Your task to perform on an android device: Search for the best Mexican restaurants Image 0: 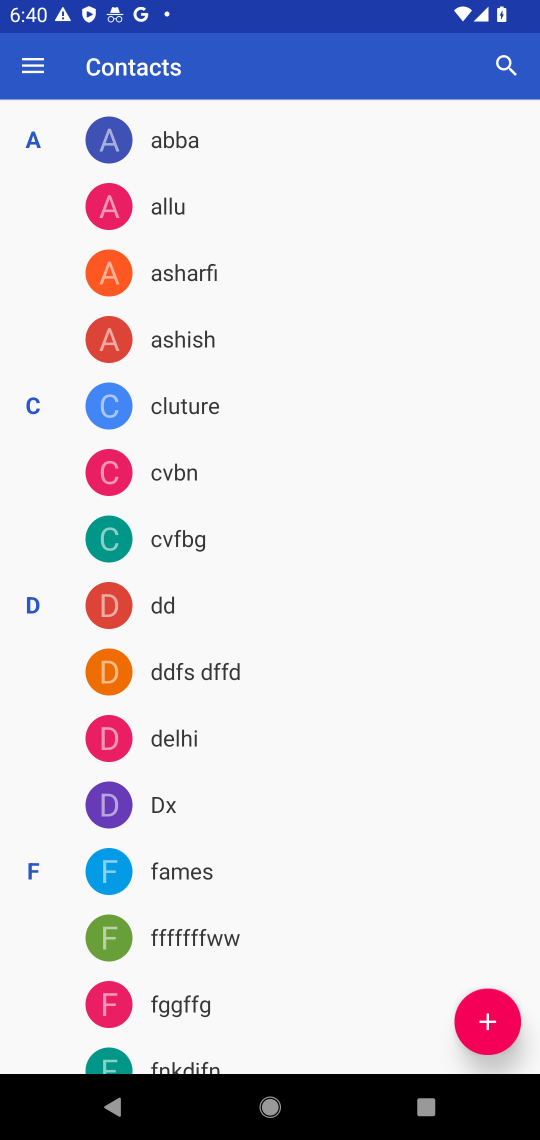
Step 0: press home button
Your task to perform on an android device: Search for the best Mexican restaurants Image 1: 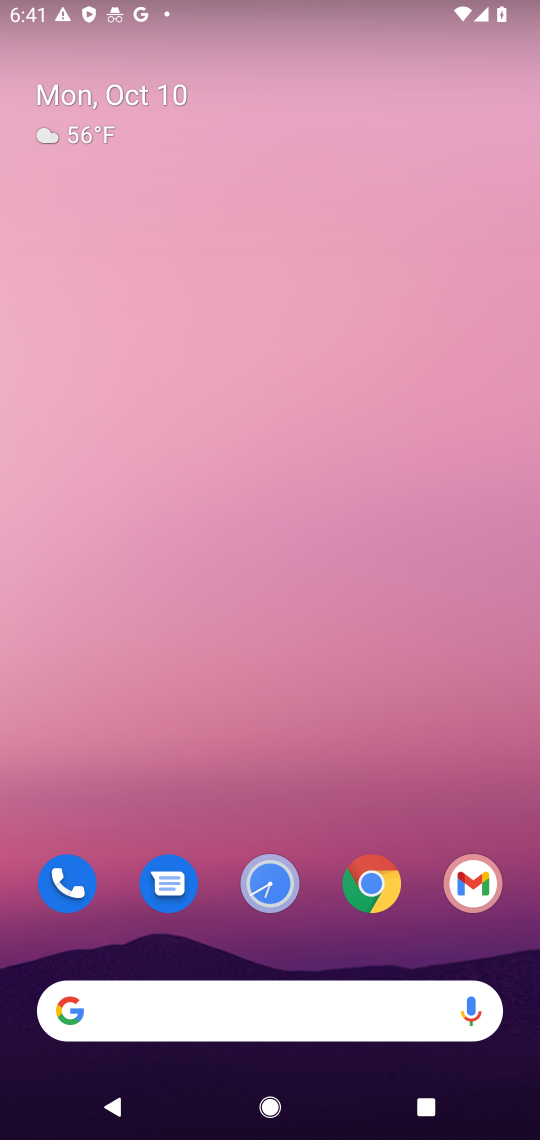
Step 1: click (371, 908)
Your task to perform on an android device: Search for the best Mexican restaurants Image 2: 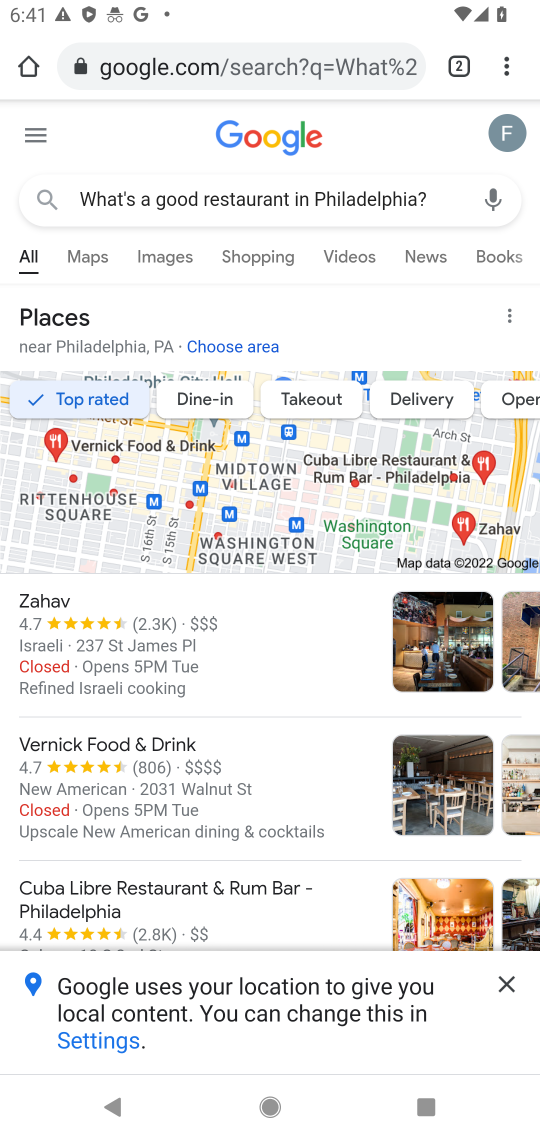
Step 2: click (401, 60)
Your task to perform on an android device: Search for the best Mexican restaurants Image 3: 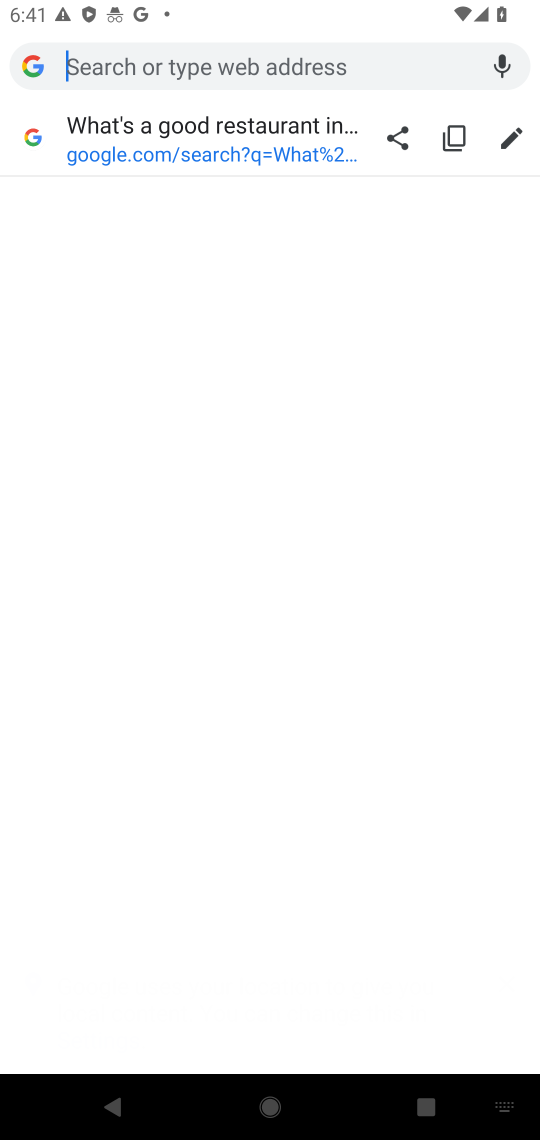
Step 3: type "best Mexican restaurants"
Your task to perform on an android device: Search for the best Mexican restaurants Image 4: 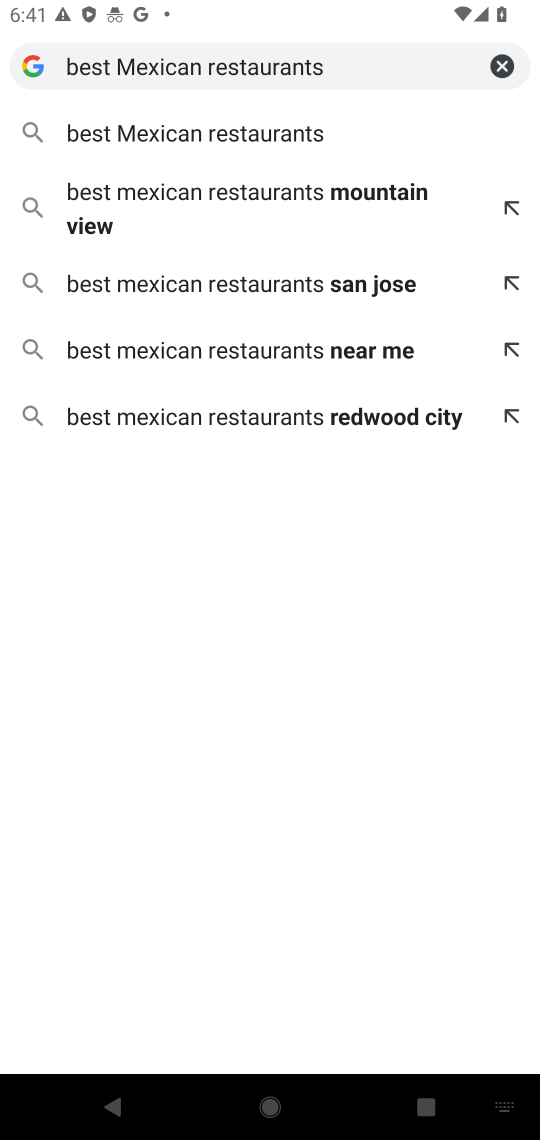
Step 4: click (199, 126)
Your task to perform on an android device: Search for the best Mexican restaurants Image 5: 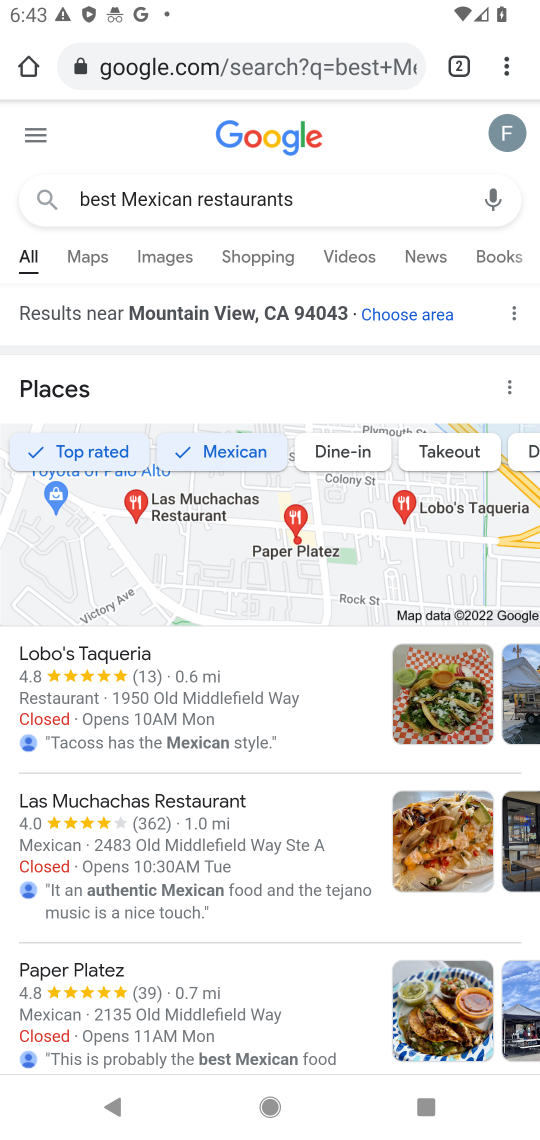
Step 5: task complete